Your task to perform on an android device: turn on notifications settings in the gmail app Image 0: 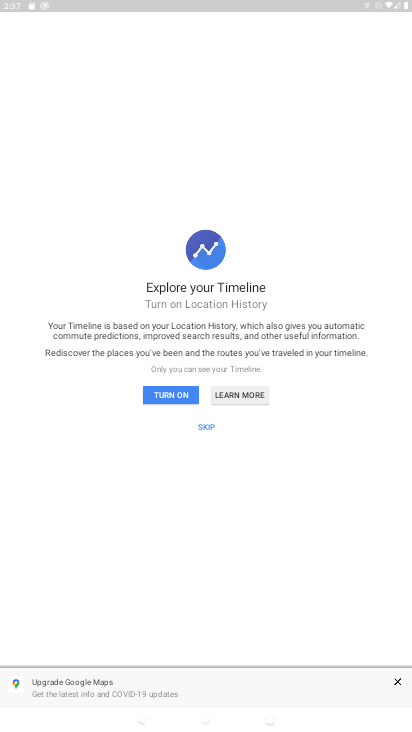
Step 0: press home button
Your task to perform on an android device: turn on notifications settings in the gmail app Image 1: 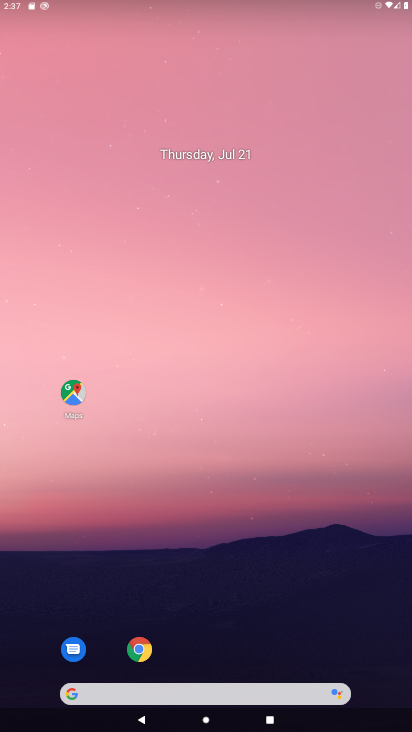
Step 1: drag from (301, 289) to (393, 21)
Your task to perform on an android device: turn on notifications settings in the gmail app Image 2: 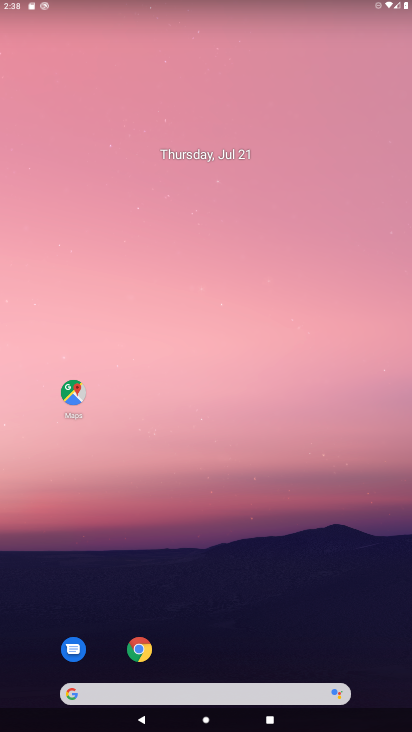
Step 2: drag from (190, 575) to (286, 7)
Your task to perform on an android device: turn on notifications settings in the gmail app Image 3: 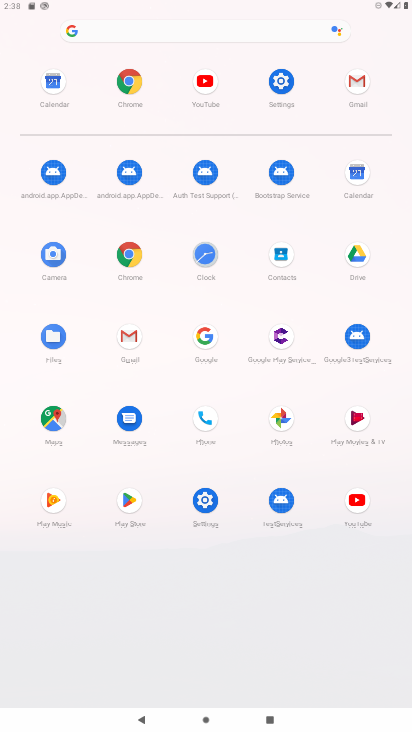
Step 3: click (343, 83)
Your task to perform on an android device: turn on notifications settings in the gmail app Image 4: 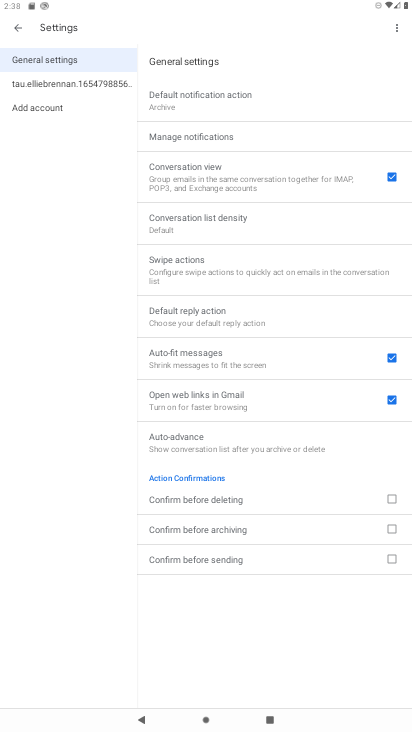
Step 4: click (31, 88)
Your task to perform on an android device: turn on notifications settings in the gmail app Image 5: 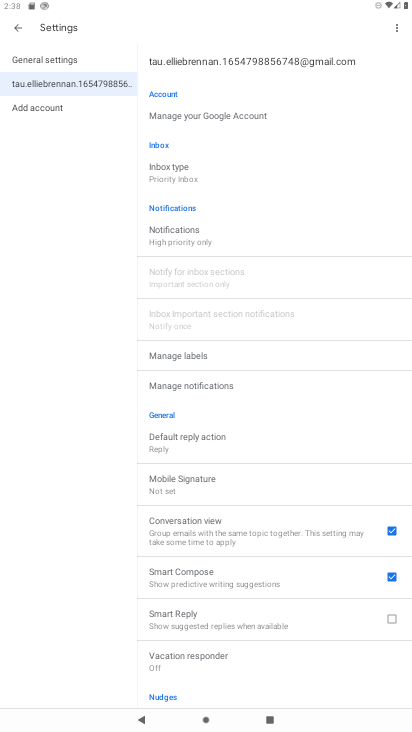
Step 5: click (169, 235)
Your task to perform on an android device: turn on notifications settings in the gmail app Image 6: 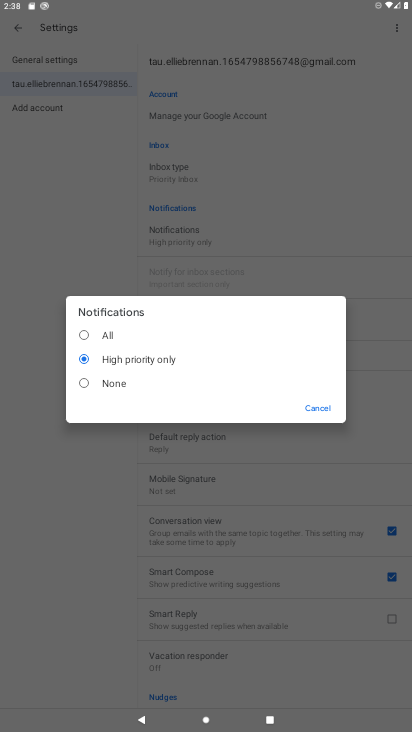
Step 6: click (115, 333)
Your task to perform on an android device: turn on notifications settings in the gmail app Image 7: 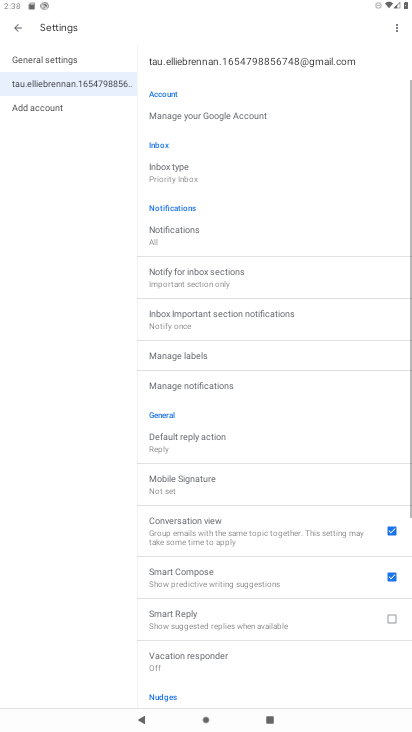
Step 7: task complete